Your task to perform on an android device: open a bookmark in the chrome app Image 0: 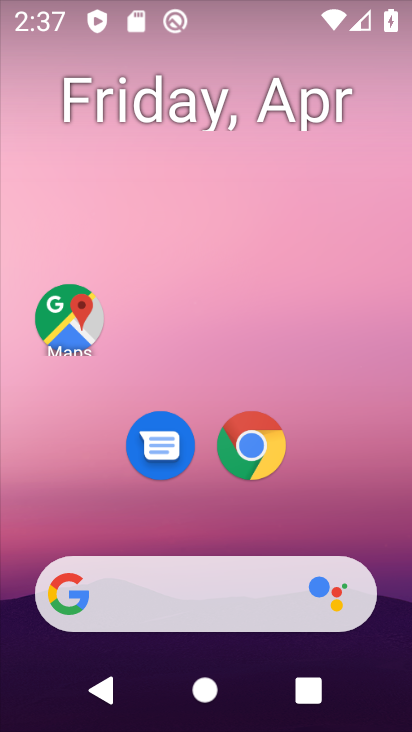
Step 0: click (260, 442)
Your task to perform on an android device: open a bookmark in the chrome app Image 1: 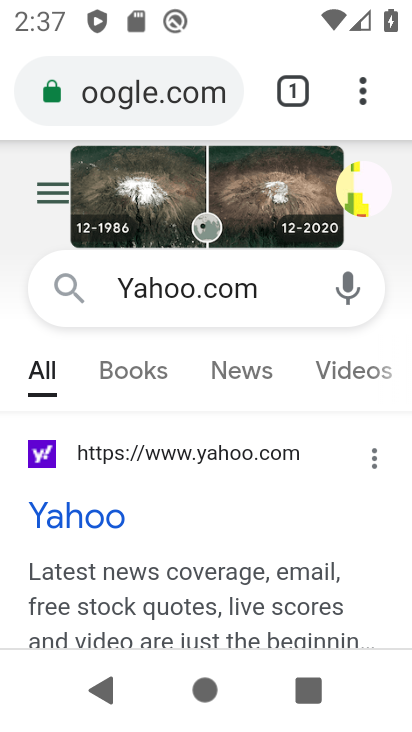
Step 1: click (364, 99)
Your task to perform on an android device: open a bookmark in the chrome app Image 2: 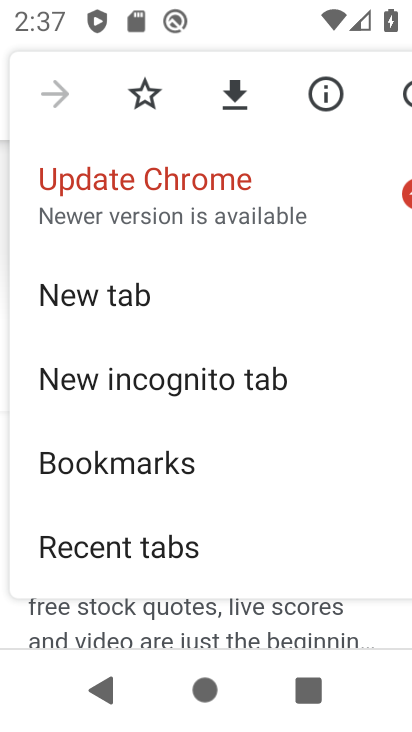
Step 2: click (147, 472)
Your task to perform on an android device: open a bookmark in the chrome app Image 3: 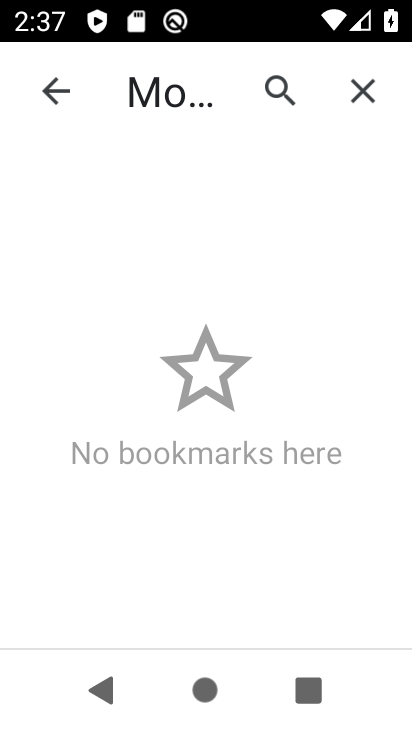
Step 3: task complete